Your task to perform on an android device: Open location settings Image 0: 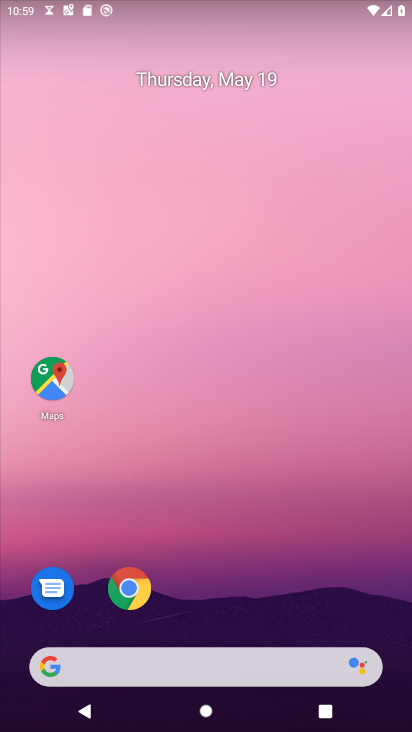
Step 0: drag from (280, 531) to (170, 138)
Your task to perform on an android device: Open location settings Image 1: 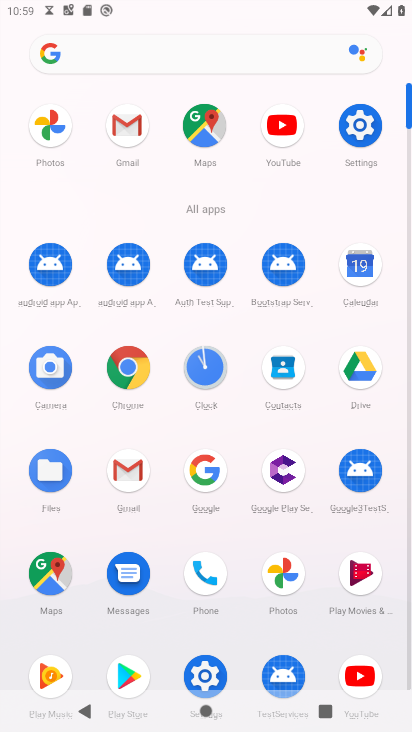
Step 1: click (201, 669)
Your task to perform on an android device: Open location settings Image 2: 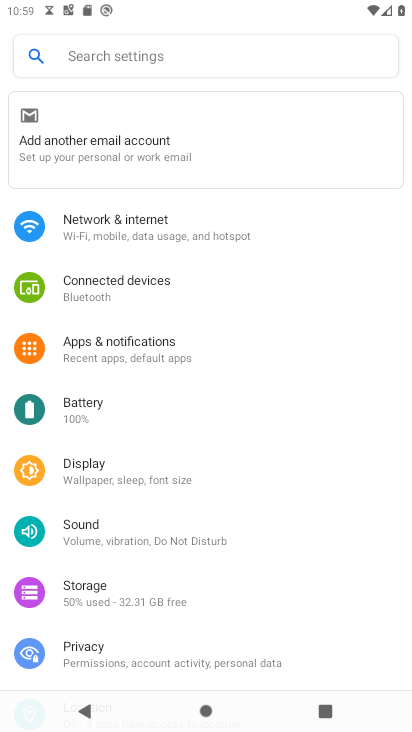
Step 2: drag from (230, 607) to (216, 216)
Your task to perform on an android device: Open location settings Image 3: 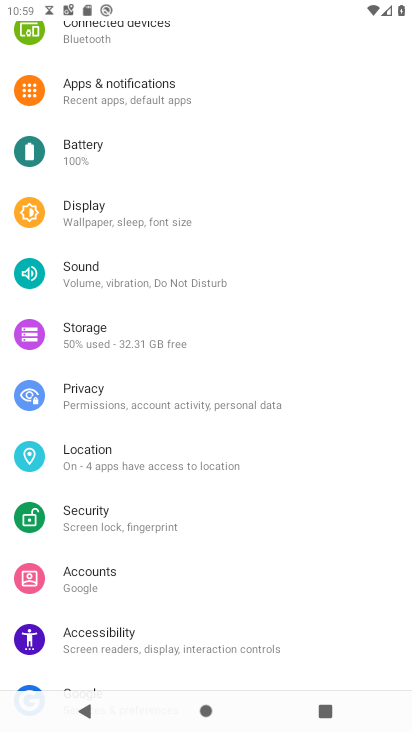
Step 3: click (154, 468)
Your task to perform on an android device: Open location settings Image 4: 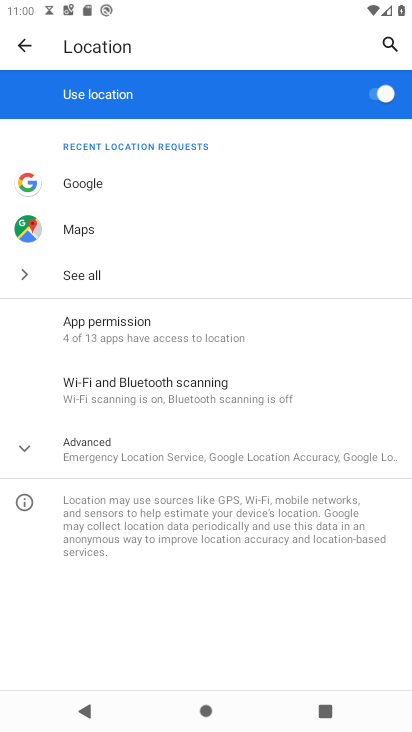
Step 4: task complete